Your task to perform on an android device: check google app version Image 0: 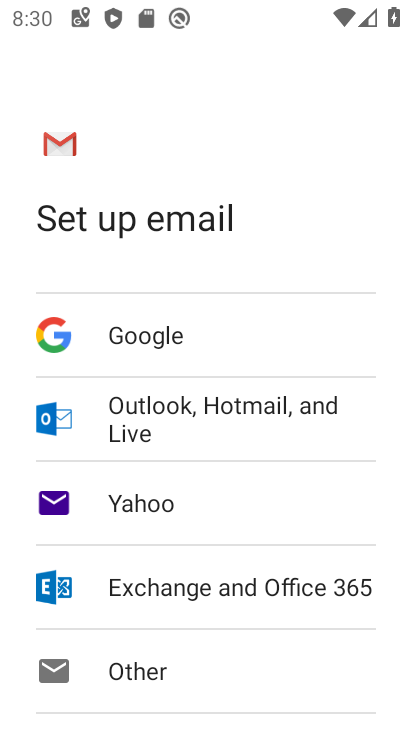
Step 0: press home button
Your task to perform on an android device: check google app version Image 1: 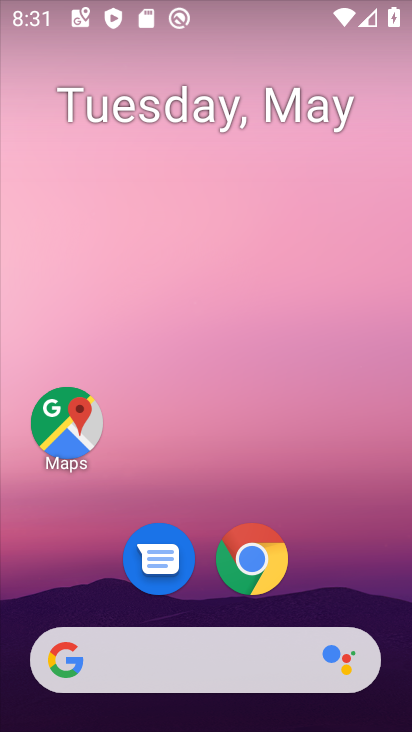
Step 1: drag from (187, 680) to (171, 270)
Your task to perform on an android device: check google app version Image 2: 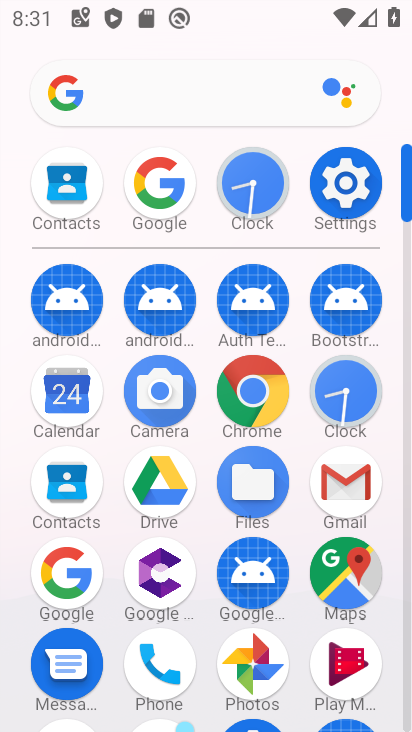
Step 2: click (86, 571)
Your task to perform on an android device: check google app version Image 3: 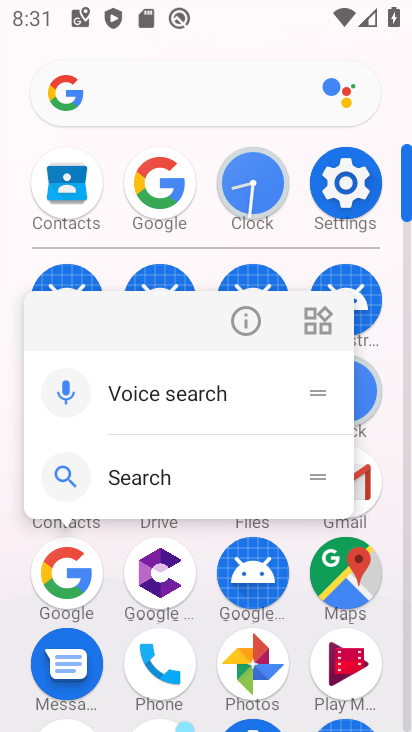
Step 3: click (239, 330)
Your task to perform on an android device: check google app version Image 4: 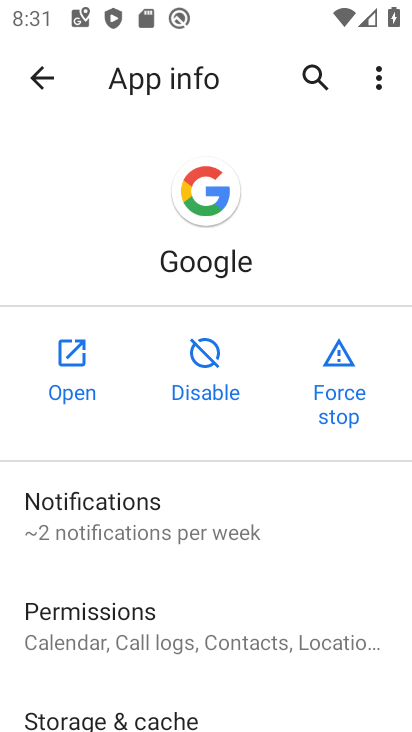
Step 4: drag from (224, 594) to (234, 181)
Your task to perform on an android device: check google app version Image 5: 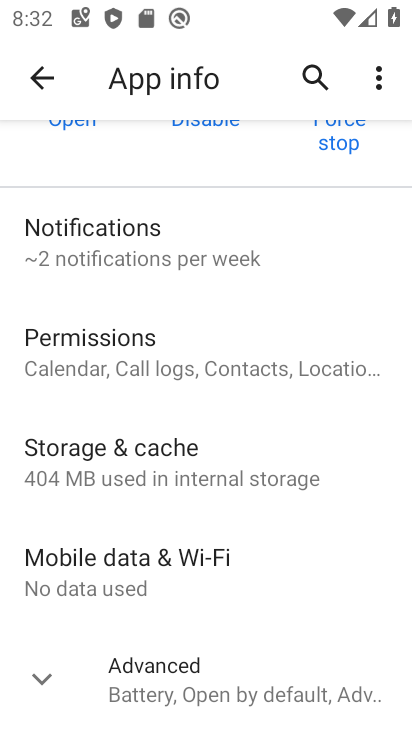
Step 5: click (238, 706)
Your task to perform on an android device: check google app version Image 6: 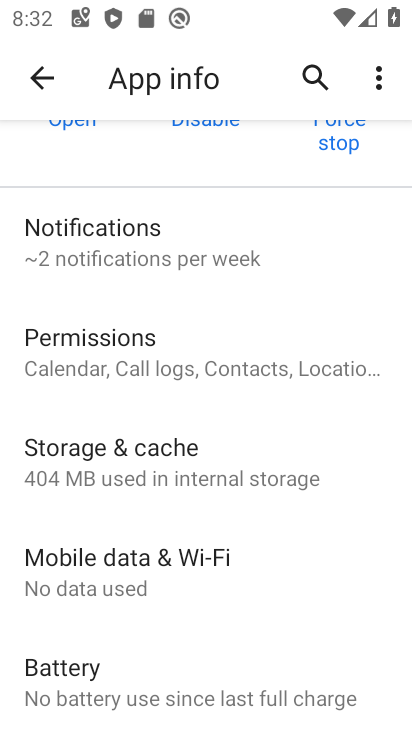
Step 6: task complete